Your task to perform on an android device: Go to wifi settings Image 0: 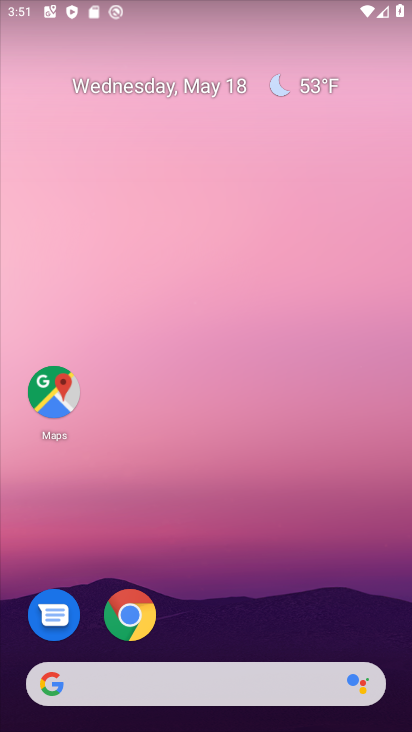
Step 0: drag from (267, 618) to (292, 156)
Your task to perform on an android device: Go to wifi settings Image 1: 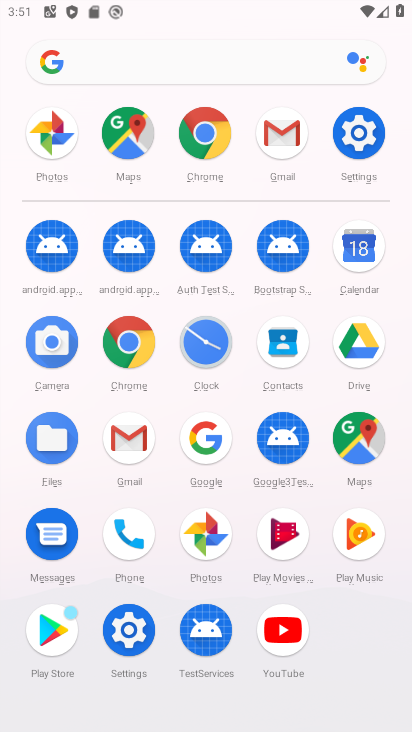
Step 1: click (355, 125)
Your task to perform on an android device: Go to wifi settings Image 2: 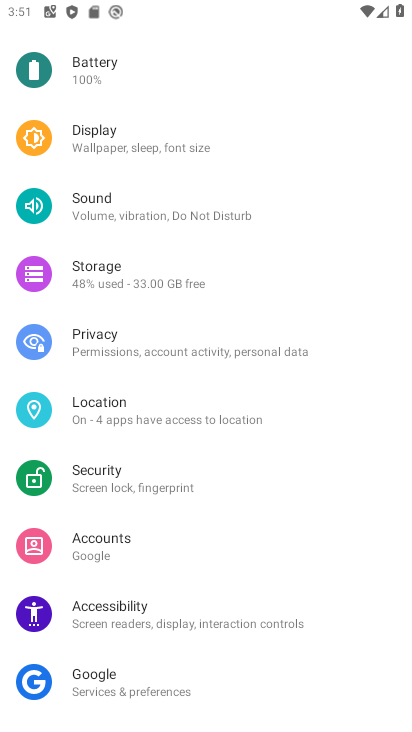
Step 2: drag from (242, 161) to (192, 592)
Your task to perform on an android device: Go to wifi settings Image 3: 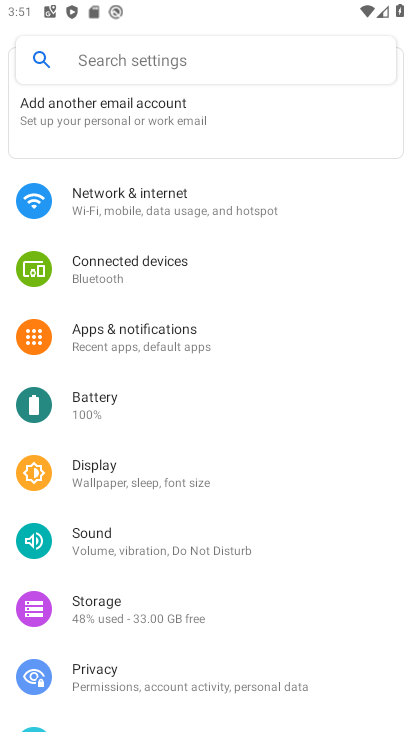
Step 3: click (204, 211)
Your task to perform on an android device: Go to wifi settings Image 4: 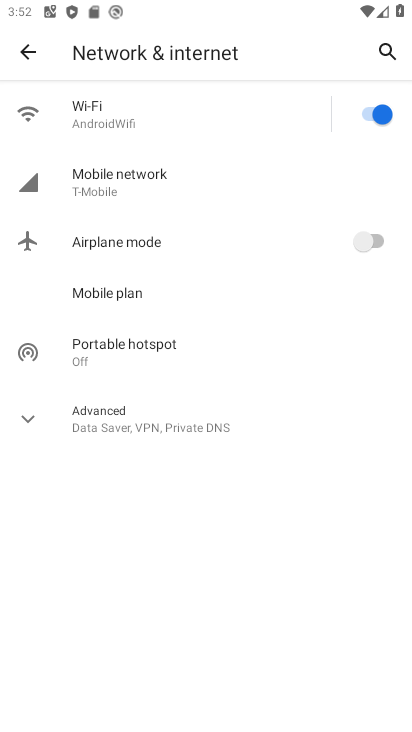
Step 4: click (137, 114)
Your task to perform on an android device: Go to wifi settings Image 5: 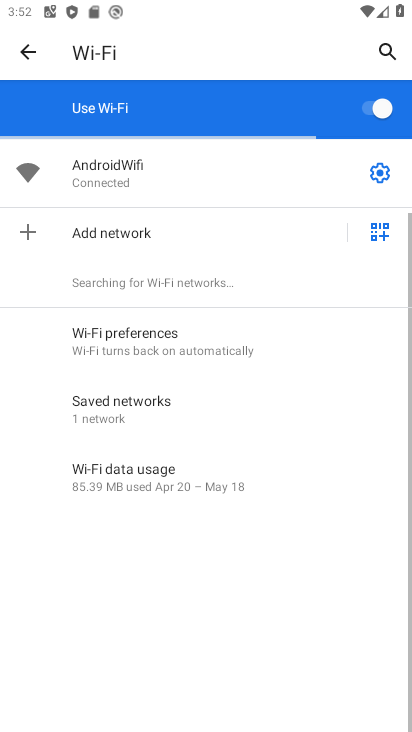
Step 5: click (379, 171)
Your task to perform on an android device: Go to wifi settings Image 6: 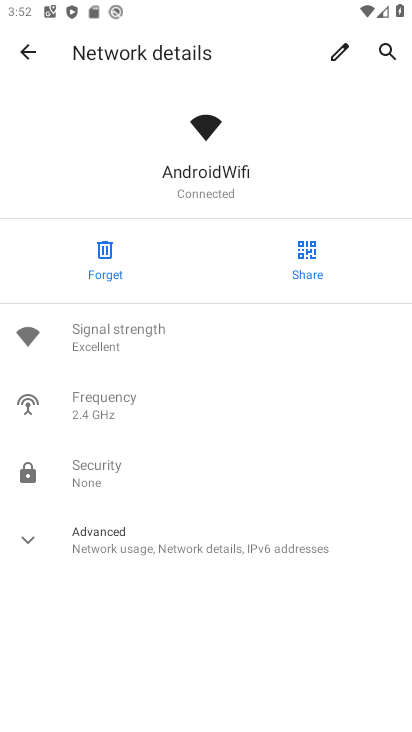
Step 6: task complete